Your task to perform on an android device: toggle translation in the chrome app Image 0: 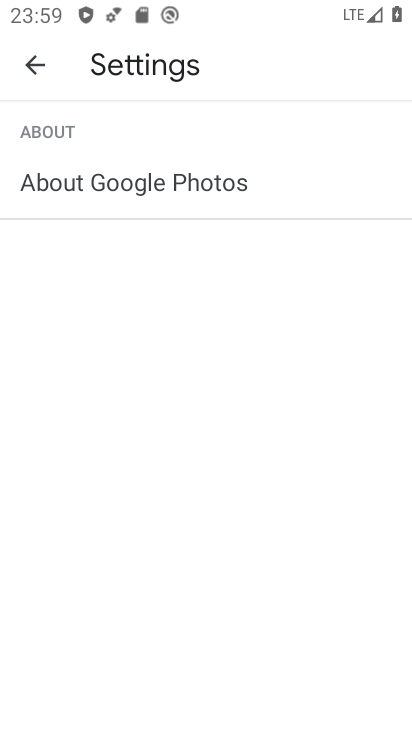
Step 0: press home button
Your task to perform on an android device: toggle translation in the chrome app Image 1: 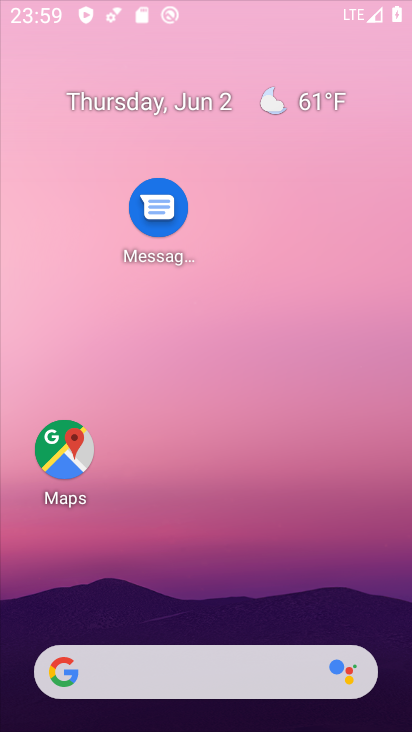
Step 1: drag from (191, 654) to (64, 707)
Your task to perform on an android device: toggle translation in the chrome app Image 2: 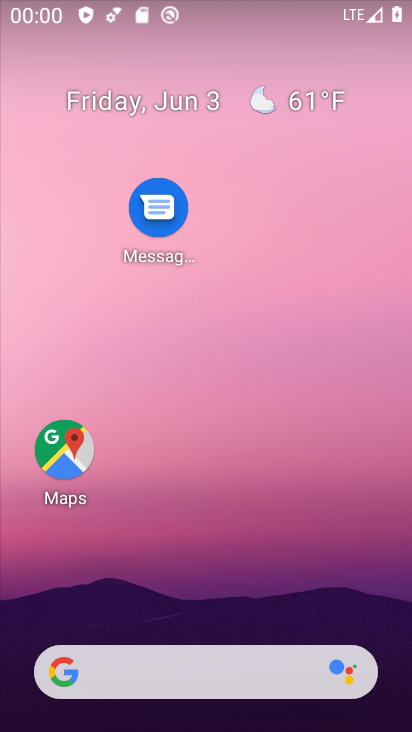
Step 2: drag from (225, 638) to (333, 3)
Your task to perform on an android device: toggle translation in the chrome app Image 3: 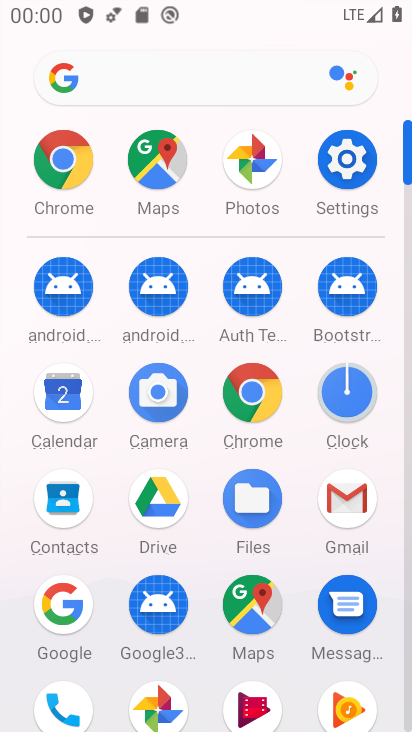
Step 3: click (236, 407)
Your task to perform on an android device: toggle translation in the chrome app Image 4: 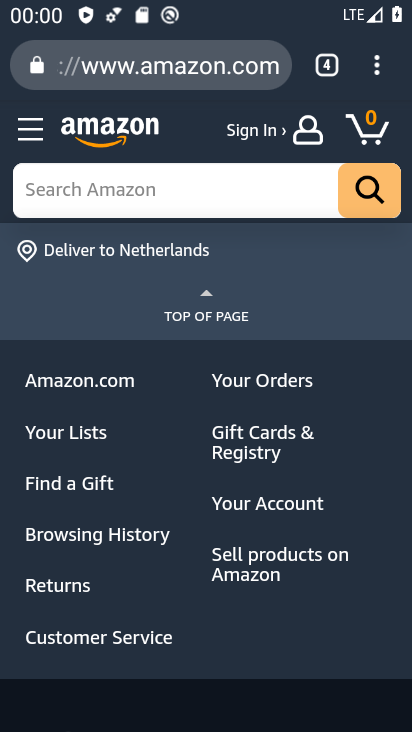
Step 4: drag from (374, 68) to (168, 632)
Your task to perform on an android device: toggle translation in the chrome app Image 5: 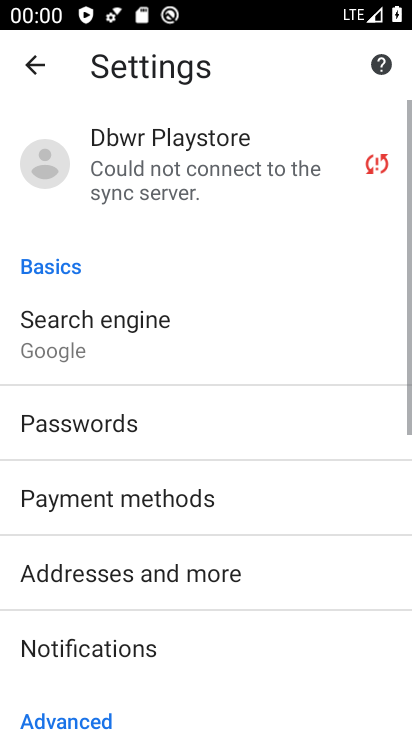
Step 5: drag from (167, 623) to (96, 20)
Your task to perform on an android device: toggle translation in the chrome app Image 6: 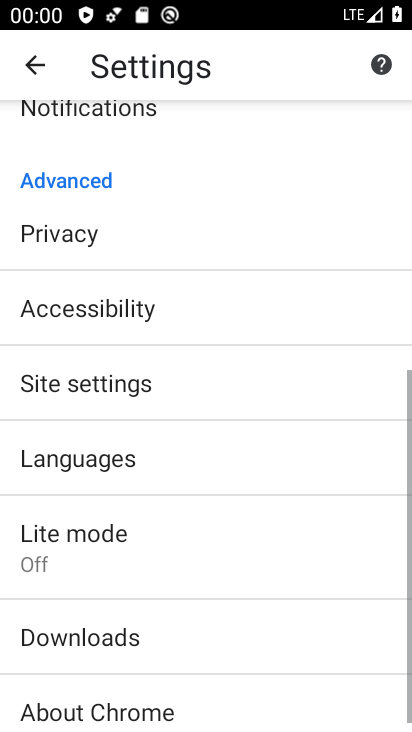
Step 6: click (99, 456)
Your task to perform on an android device: toggle translation in the chrome app Image 7: 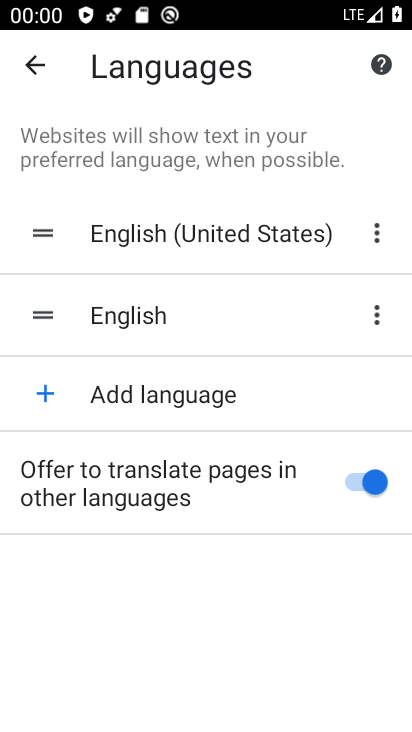
Step 7: click (318, 486)
Your task to perform on an android device: toggle translation in the chrome app Image 8: 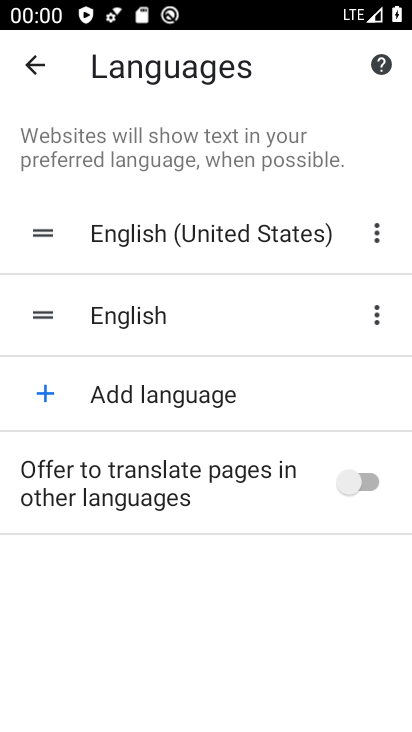
Step 8: task complete